Your task to perform on an android device: move an email to a new category in the gmail app Image 0: 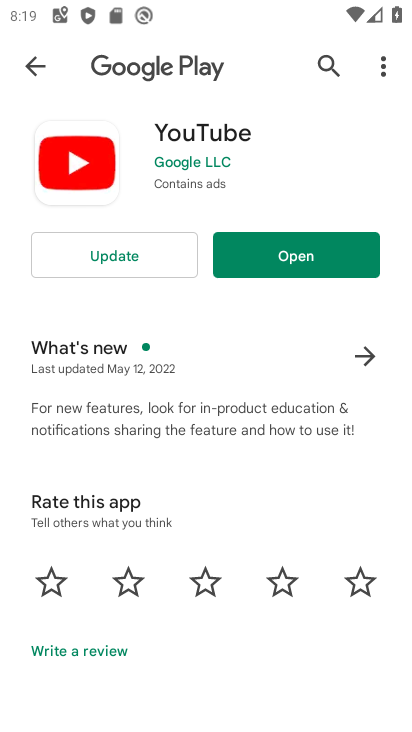
Step 0: press home button
Your task to perform on an android device: move an email to a new category in the gmail app Image 1: 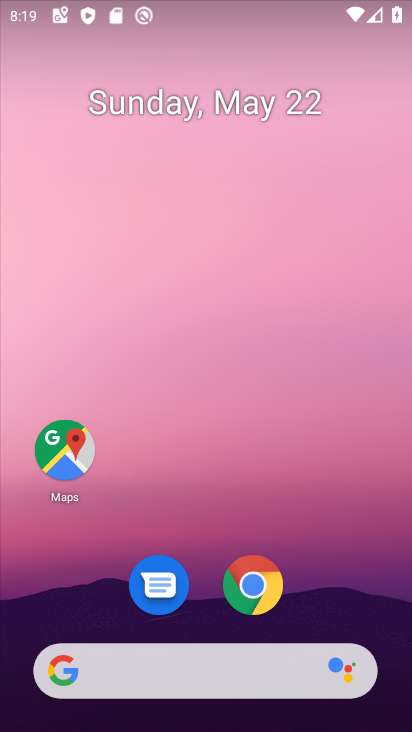
Step 1: drag from (253, 471) to (243, 22)
Your task to perform on an android device: move an email to a new category in the gmail app Image 2: 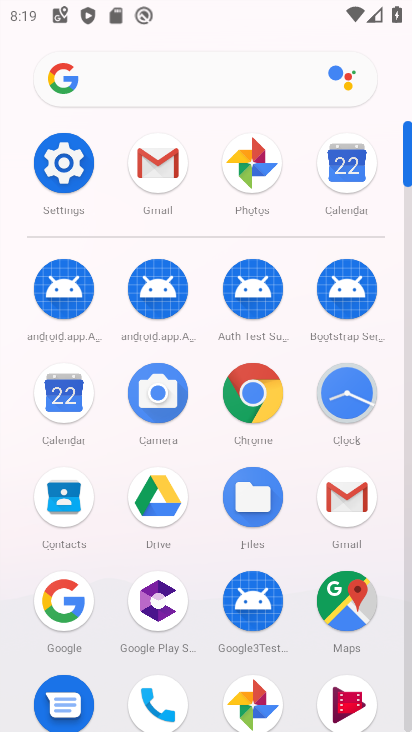
Step 2: click (151, 165)
Your task to perform on an android device: move an email to a new category in the gmail app Image 3: 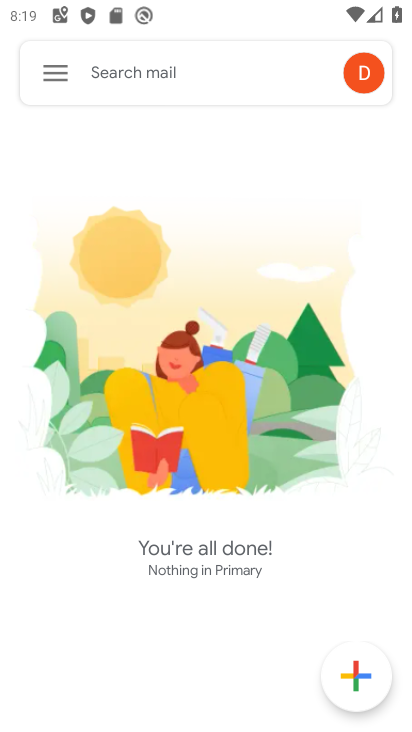
Step 3: click (57, 67)
Your task to perform on an android device: move an email to a new category in the gmail app Image 4: 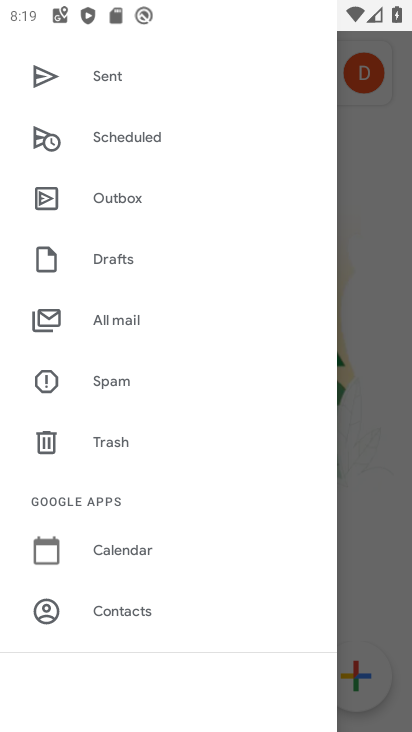
Step 4: click (124, 317)
Your task to perform on an android device: move an email to a new category in the gmail app Image 5: 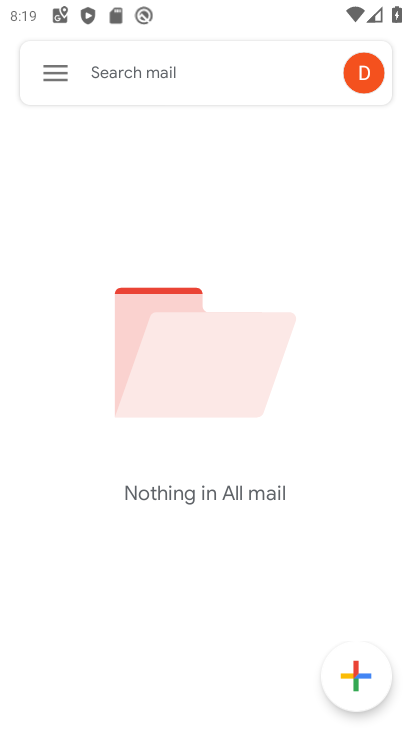
Step 5: task complete